Your task to perform on an android device: Search for "rayovac triple a" on target, select the first entry, and add it to the cart. Image 0: 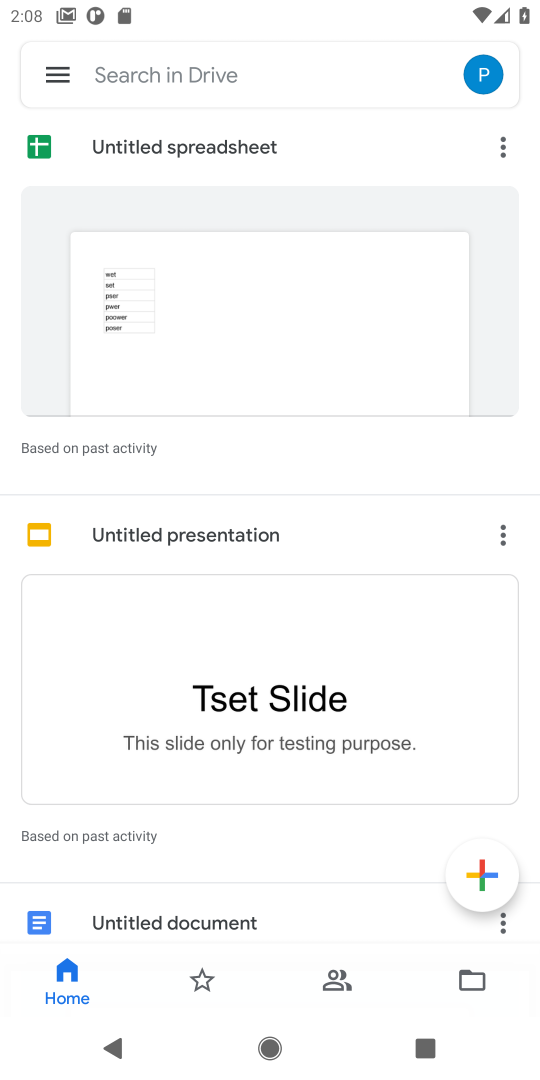
Step 0: press home button
Your task to perform on an android device: Search for "rayovac triple a" on target, select the first entry, and add it to the cart. Image 1: 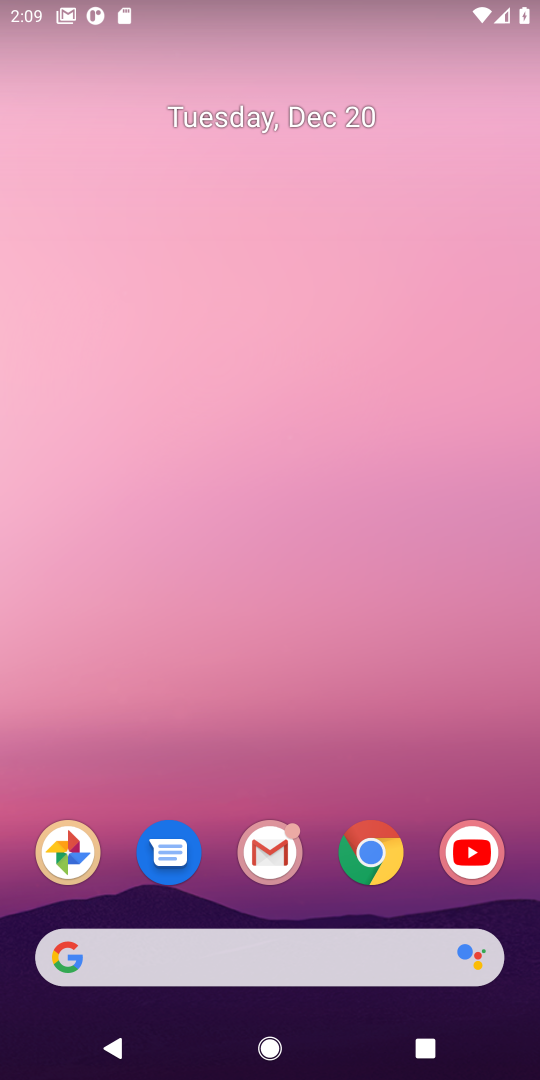
Step 1: click (361, 852)
Your task to perform on an android device: Search for "rayovac triple a" on target, select the first entry, and add it to the cart. Image 2: 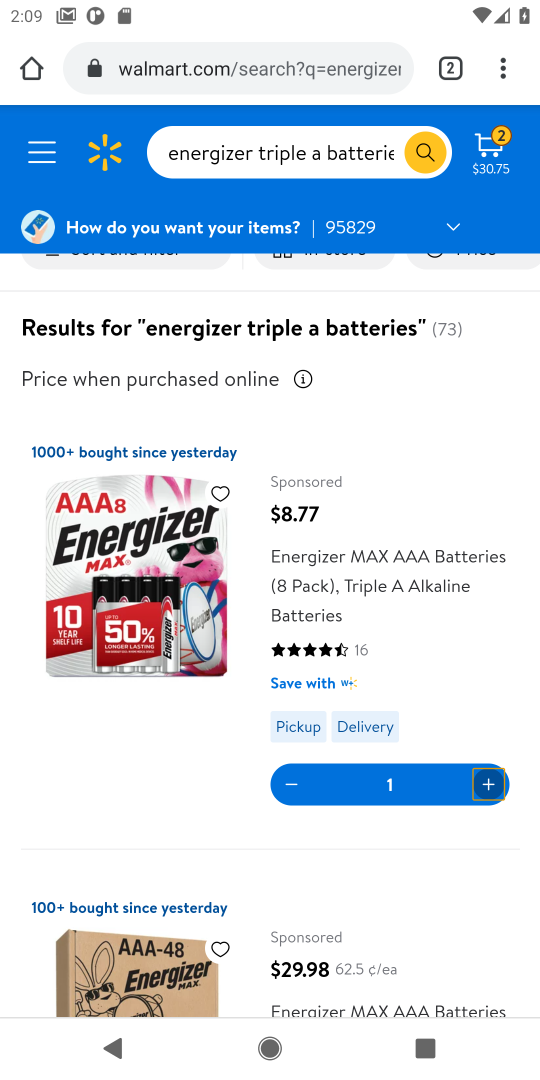
Step 2: click (175, 68)
Your task to perform on an android device: Search for "rayovac triple a" on target, select the first entry, and add it to the cart. Image 3: 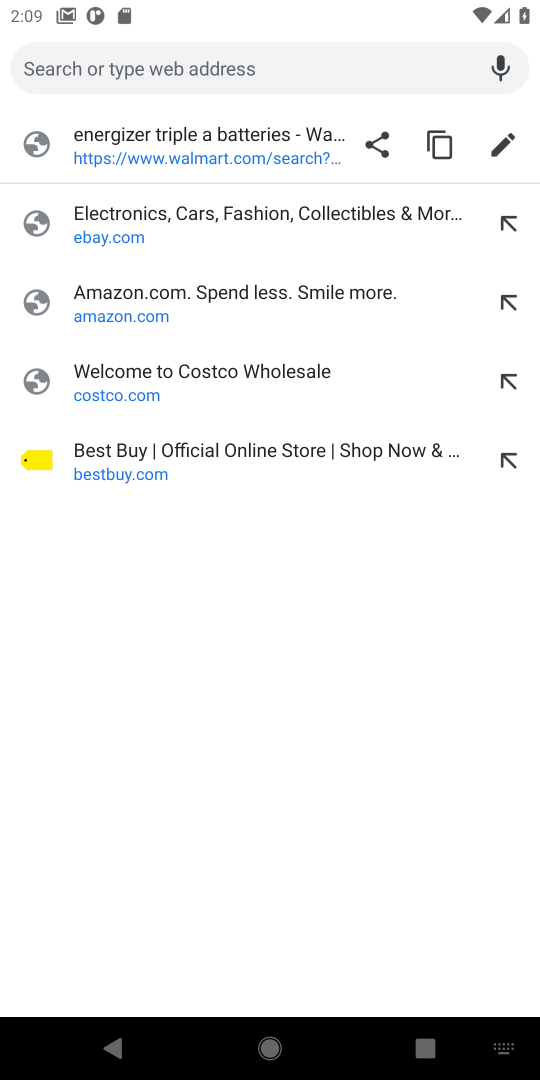
Step 3: type "target.com"
Your task to perform on an android device: Search for "rayovac triple a" on target, select the first entry, and add it to the cart. Image 4: 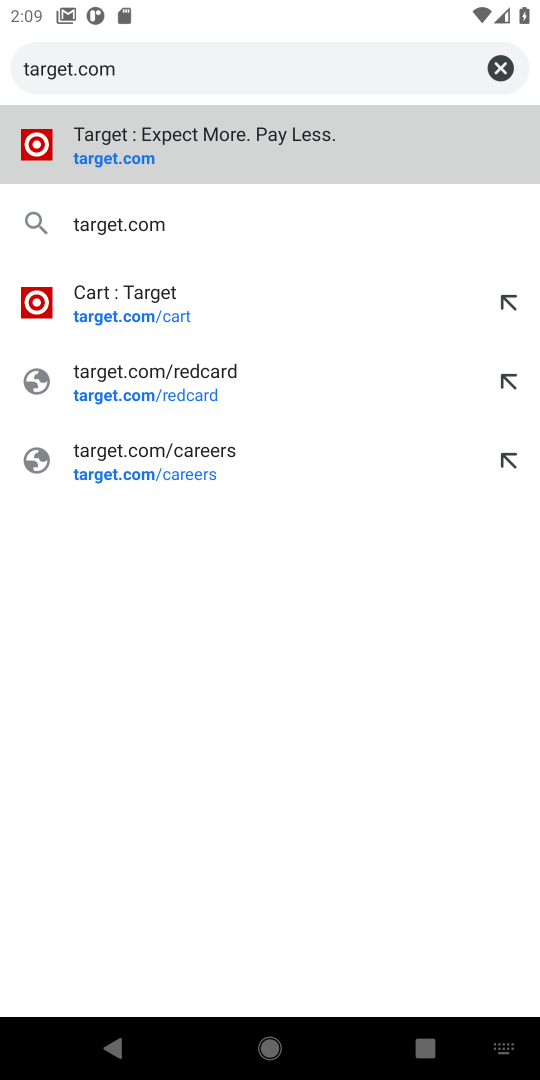
Step 4: click (84, 146)
Your task to perform on an android device: Search for "rayovac triple a" on target, select the first entry, and add it to the cart. Image 5: 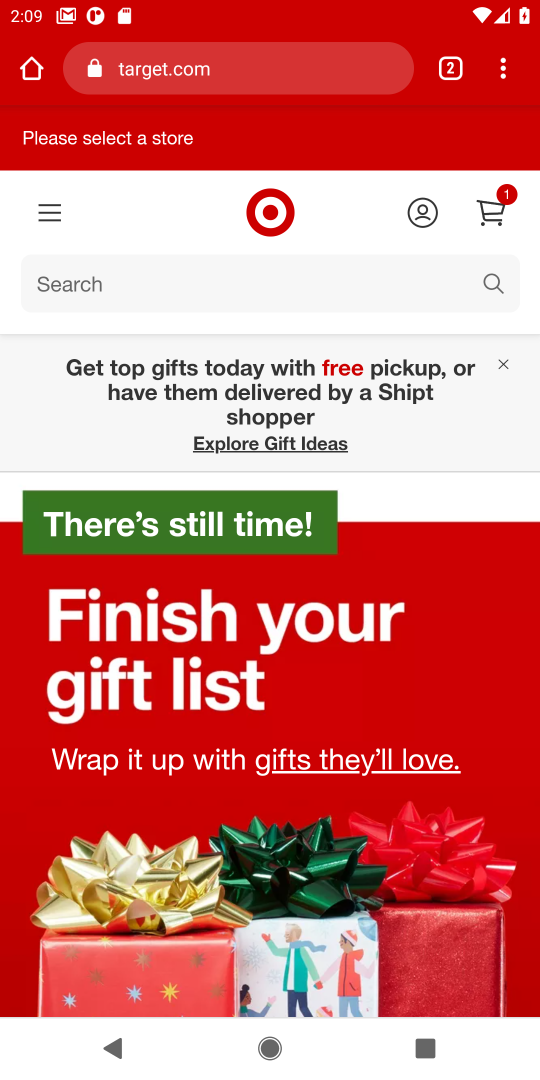
Step 5: click (63, 288)
Your task to perform on an android device: Search for "rayovac triple a" on target, select the first entry, and add it to the cart. Image 6: 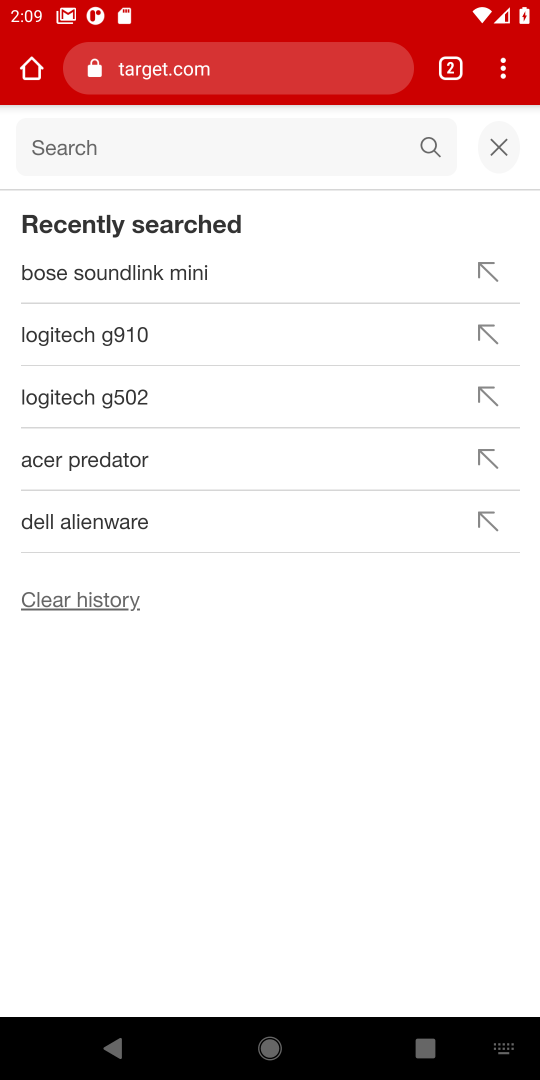
Step 6: type "rayovac triple a"
Your task to perform on an android device: Search for "rayovac triple a" on target, select the first entry, and add it to the cart. Image 7: 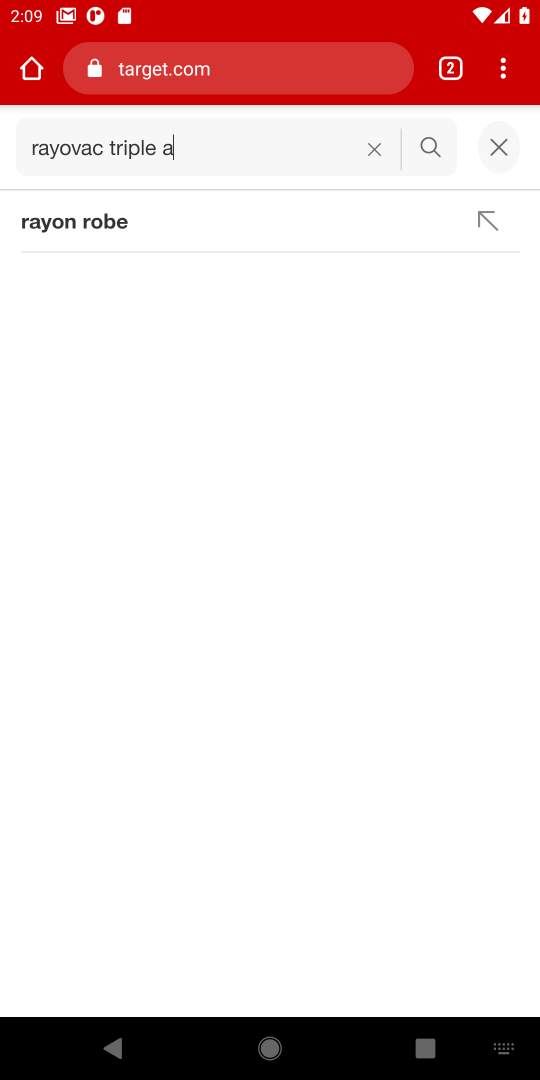
Step 7: click (434, 144)
Your task to perform on an android device: Search for "rayovac triple a" on target, select the first entry, and add it to the cart. Image 8: 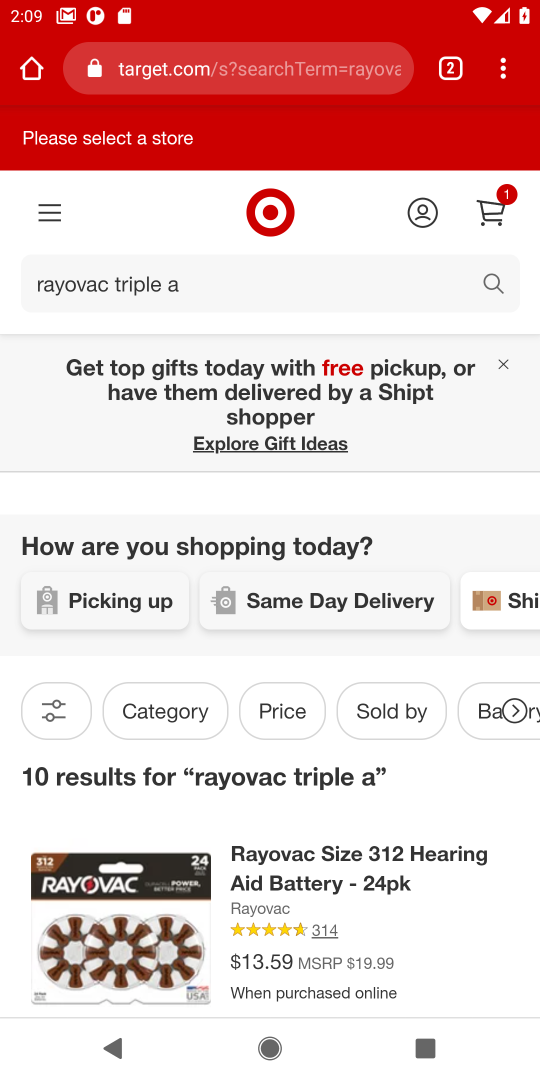
Step 8: task complete